Your task to perform on an android device: turn on the 12-hour format for clock Image 0: 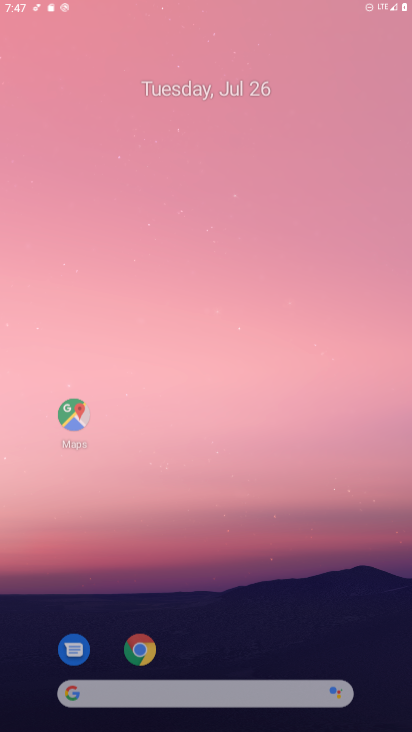
Step 0: click (234, 147)
Your task to perform on an android device: turn on the 12-hour format for clock Image 1: 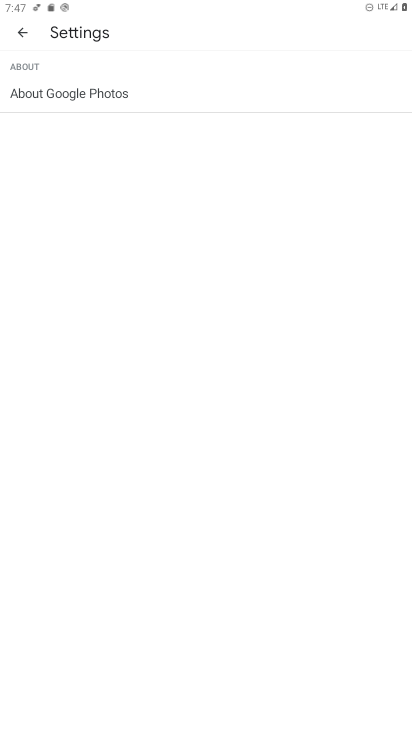
Step 1: press home button
Your task to perform on an android device: turn on the 12-hour format for clock Image 2: 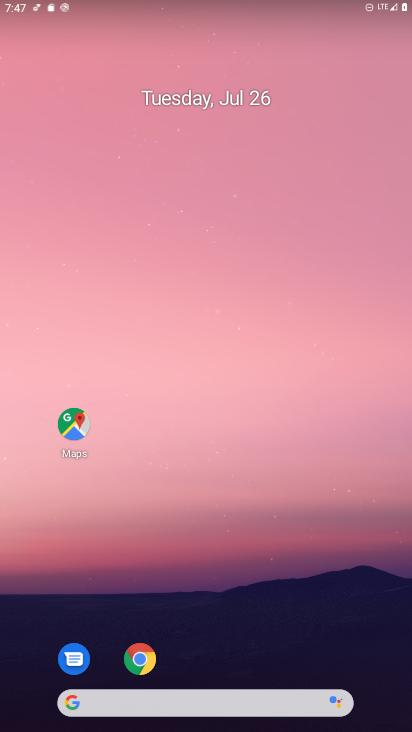
Step 2: drag from (180, 683) to (258, 320)
Your task to perform on an android device: turn on the 12-hour format for clock Image 3: 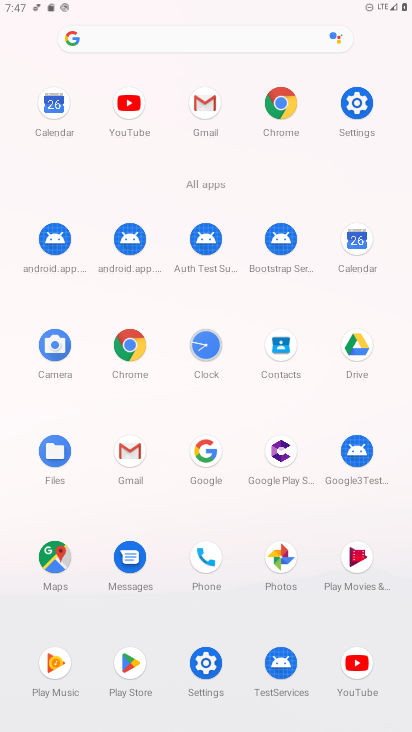
Step 3: click (200, 344)
Your task to perform on an android device: turn on the 12-hour format for clock Image 4: 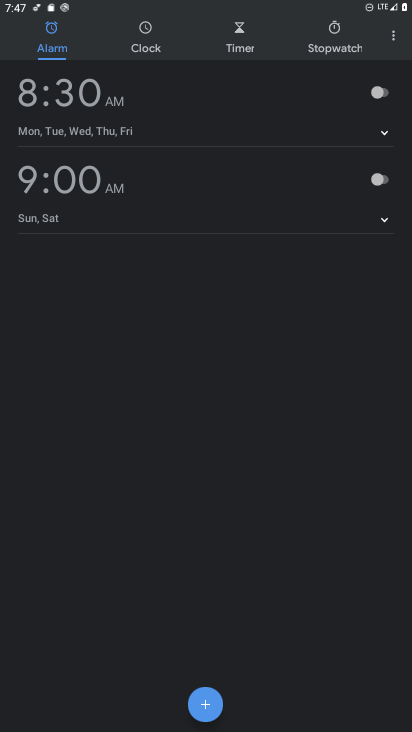
Step 4: click (395, 34)
Your task to perform on an android device: turn on the 12-hour format for clock Image 5: 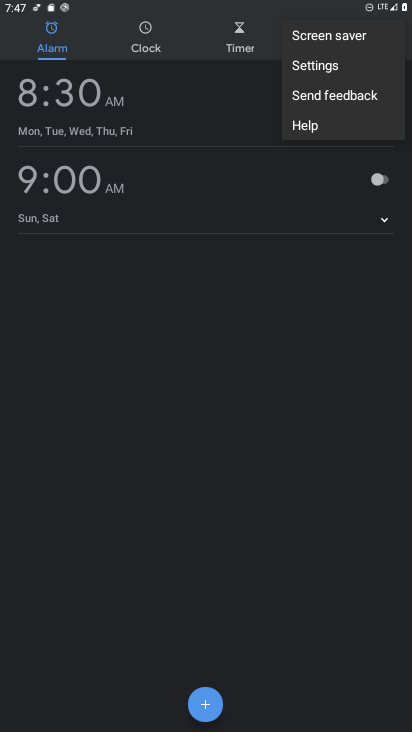
Step 5: click (350, 61)
Your task to perform on an android device: turn on the 12-hour format for clock Image 6: 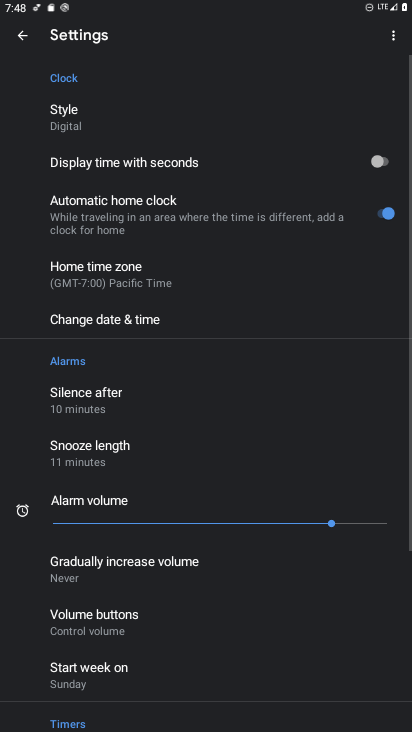
Step 6: drag from (204, 554) to (248, 256)
Your task to perform on an android device: turn on the 12-hour format for clock Image 7: 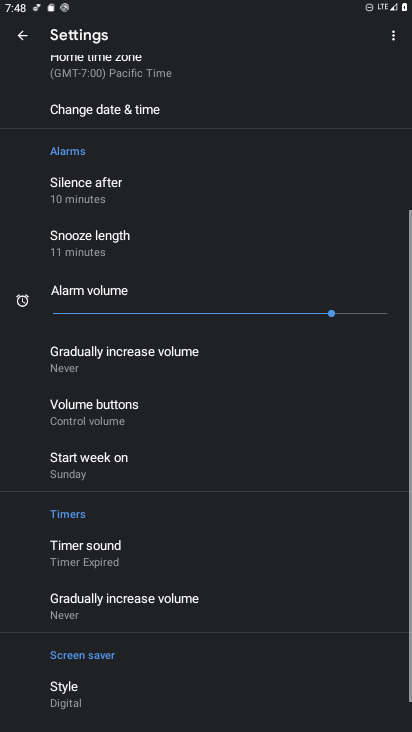
Step 7: drag from (248, 224) to (255, 635)
Your task to perform on an android device: turn on the 12-hour format for clock Image 8: 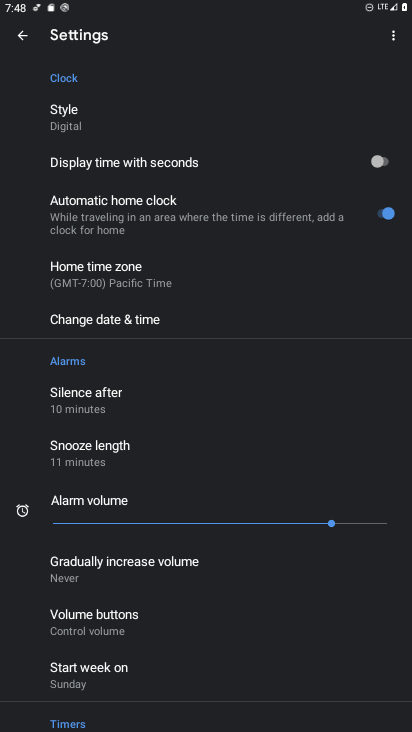
Step 8: click (169, 321)
Your task to perform on an android device: turn on the 12-hour format for clock Image 9: 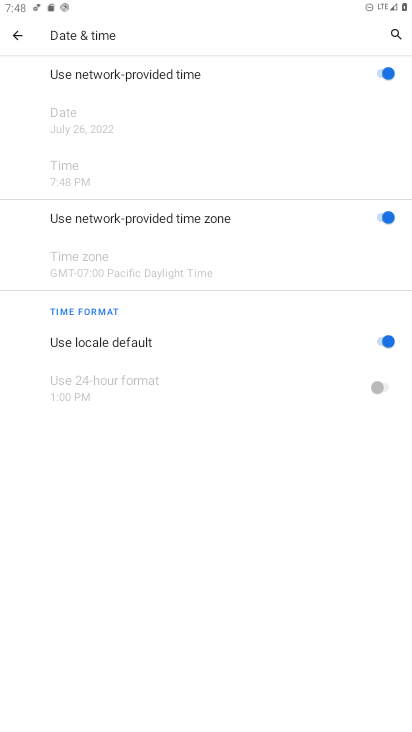
Step 9: task complete